Your task to perform on an android device: allow cookies in the chrome app Image 0: 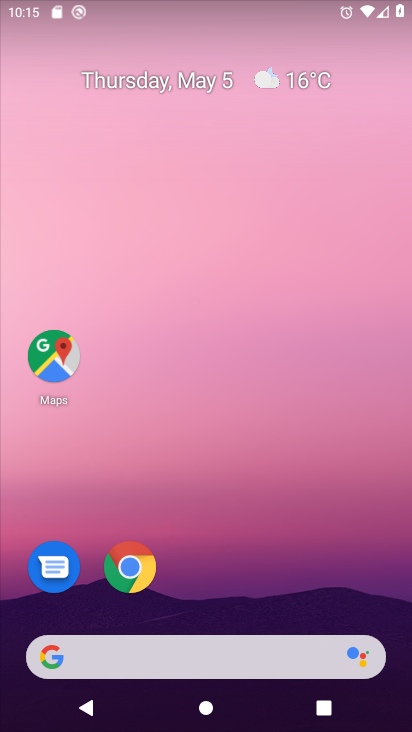
Step 0: drag from (296, 564) to (332, 3)
Your task to perform on an android device: allow cookies in the chrome app Image 1: 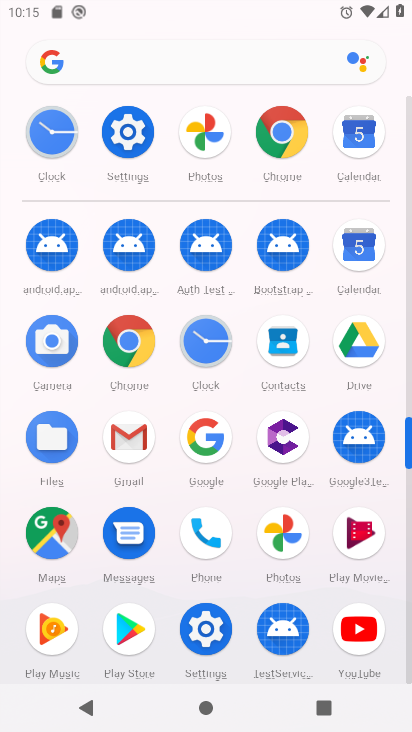
Step 1: click (280, 130)
Your task to perform on an android device: allow cookies in the chrome app Image 2: 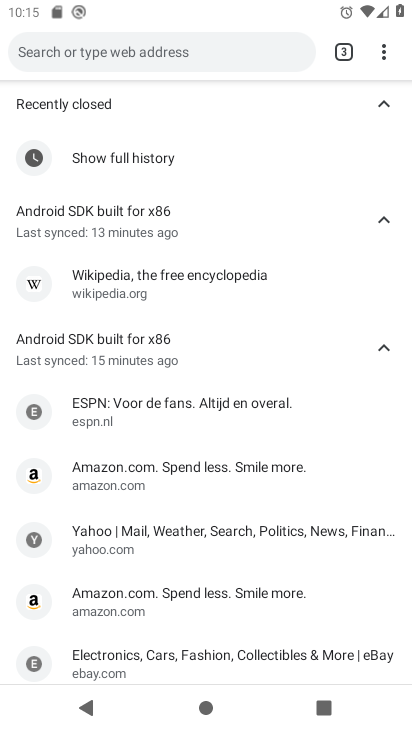
Step 2: drag from (382, 53) to (226, 429)
Your task to perform on an android device: allow cookies in the chrome app Image 3: 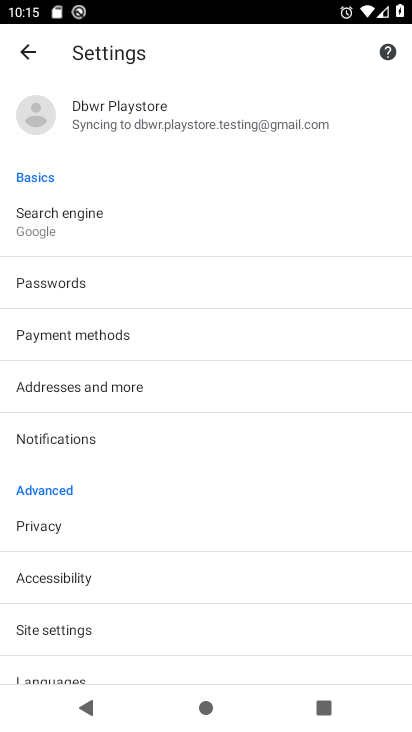
Step 3: click (197, 634)
Your task to perform on an android device: allow cookies in the chrome app Image 4: 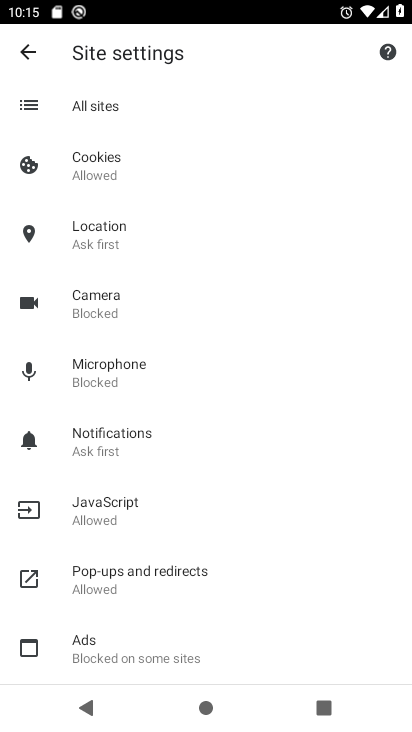
Step 4: click (199, 156)
Your task to perform on an android device: allow cookies in the chrome app Image 5: 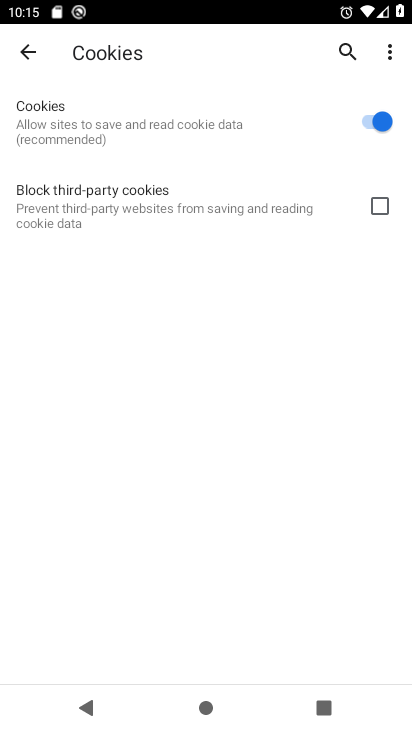
Step 5: task complete